Your task to perform on an android device: Open the map Image 0: 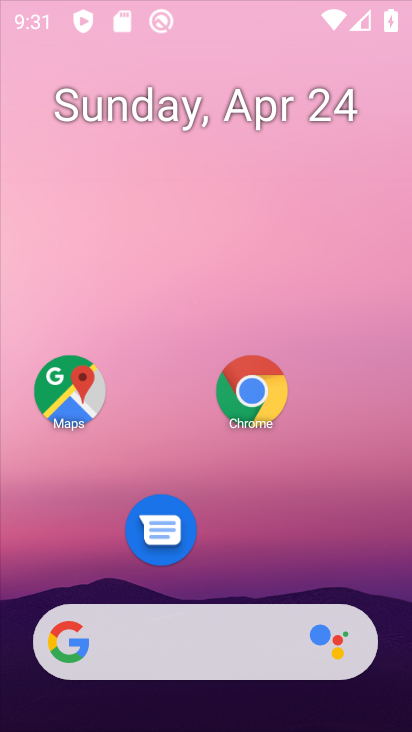
Step 0: drag from (243, 586) to (256, 276)
Your task to perform on an android device: Open the map Image 1: 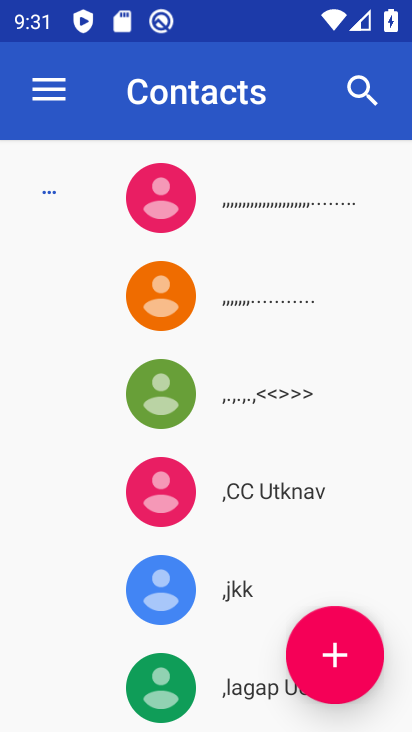
Step 1: press home button
Your task to perform on an android device: Open the map Image 2: 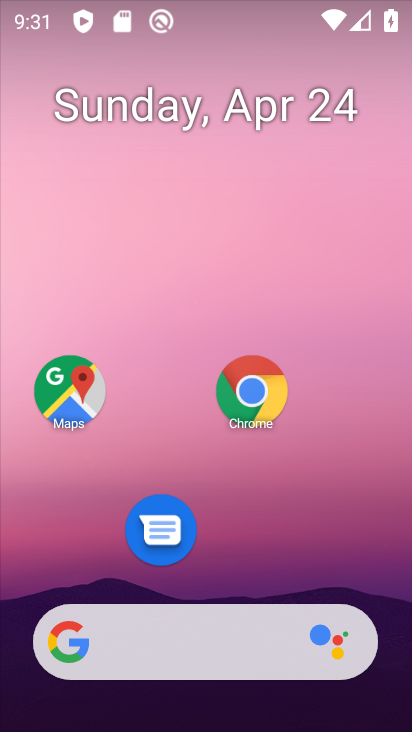
Step 2: click (85, 393)
Your task to perform on an android device: Open the map Image 3: 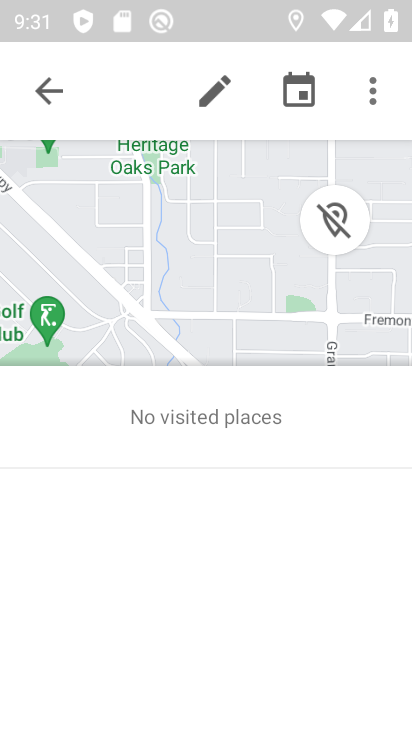
Step 3: task complete